Your task to perform on an android device: Open notification settings Image 0: 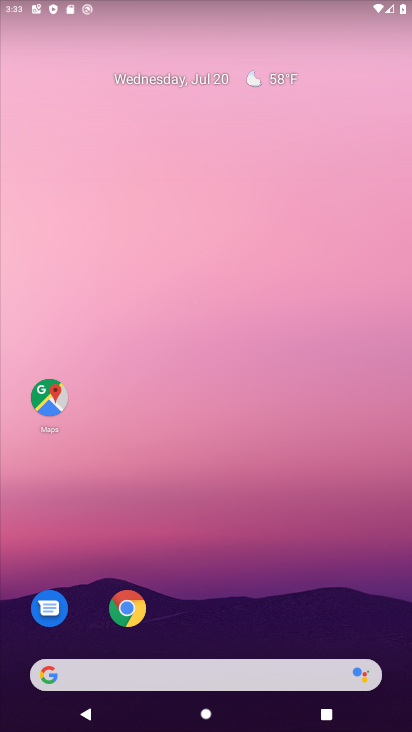
Step 0: drag from (233, 625) to (231, 166)
Your task to perform on an android device: Open notification settings Image 1: 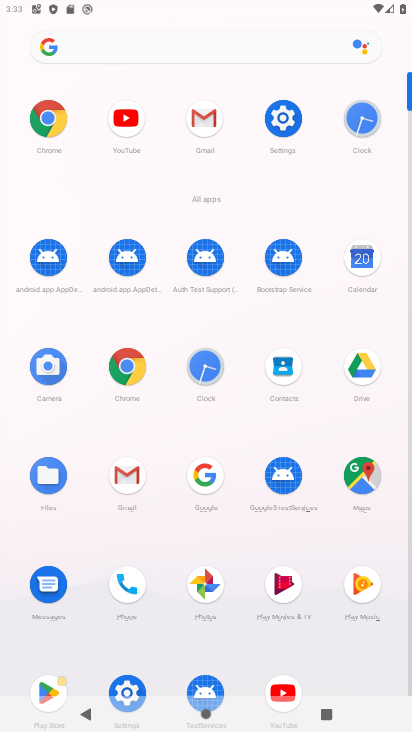
Step 1: click (267, 124)
Your task to perform on an android device: Open notification settings Image 2: 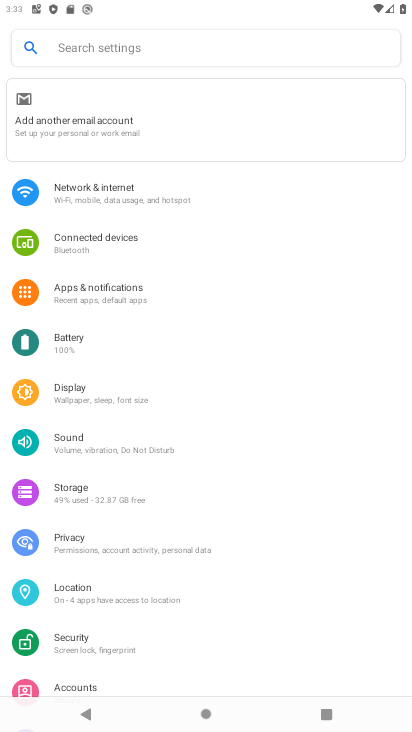
Step 2: click (143, 295)
Your task to perform on an android device: Open notification settings Image 3: 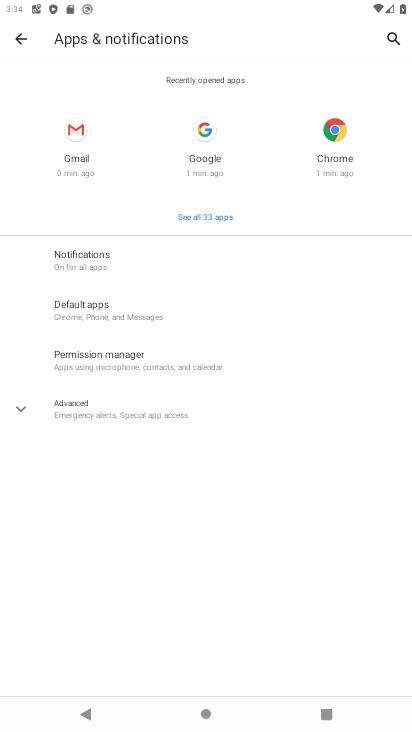
Step 3: task complete